Your task to perform on an android device: snooze an email in the gmail app Image 0: 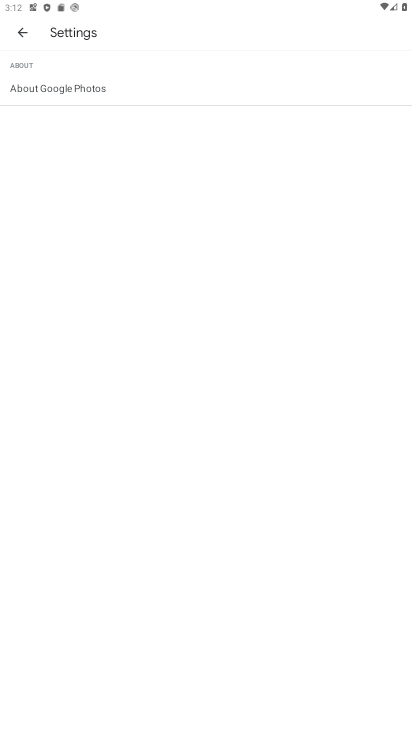
Step 0: press home button
Your task to perform on an android device: snooze an email in the gmail app Image 1: 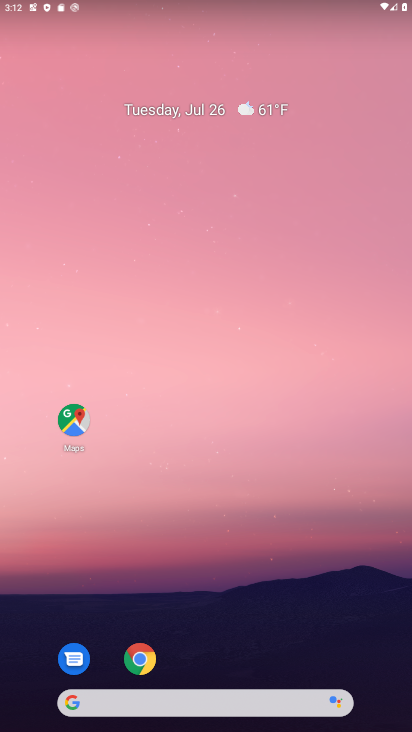
Step 1: drag from (187, 552) to (187, 212)
Your task to perform on an android device: snooze an email in the gmail app Image 2: 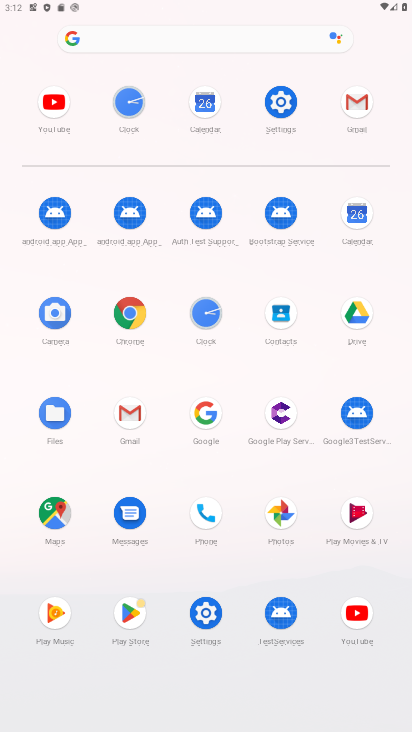
Step 2: click (122, 426)
Your task to perform on an android device: snooze an email in the gmail app Image 3: 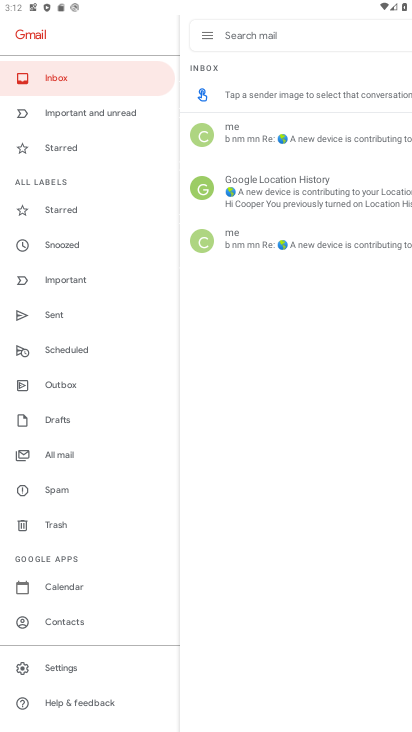
Step 3: click (253, 186)
Your task to perform on an android device: snooze an email in the gmail app Image 4: 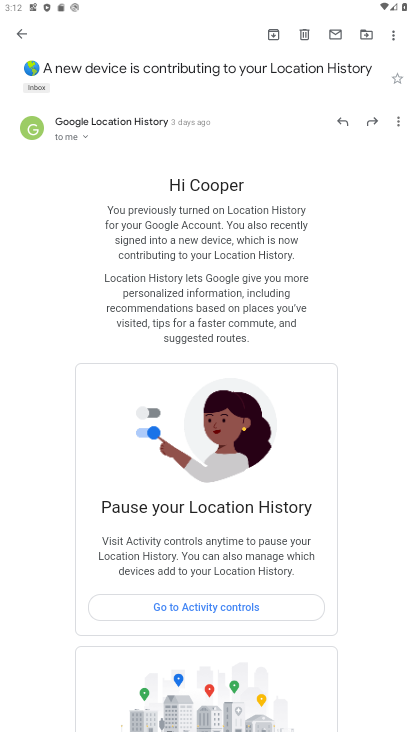
Step 4: click (391, 32)
Your task to perform on an android device: snooze an email in the gmail app Image 5: 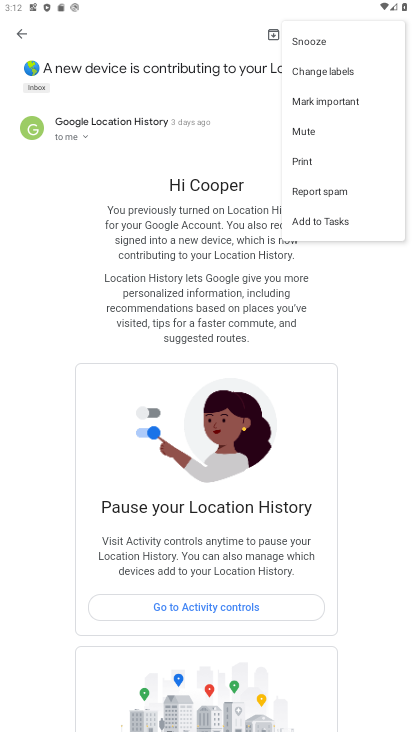
Step 5: click (305, 36)
Your task to perform on an android device: snooze an email in the gmail app Image 6: 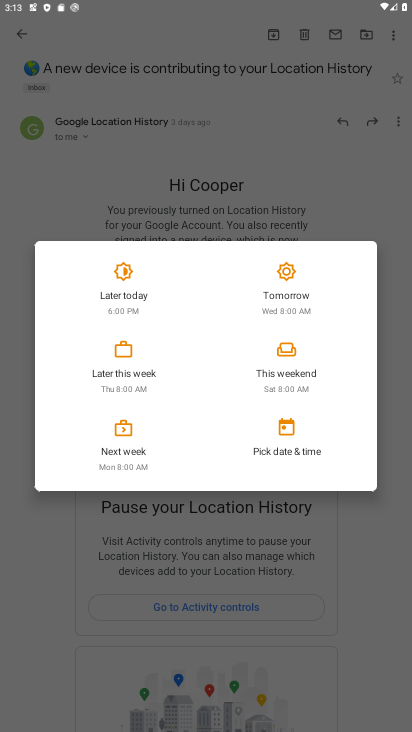
Step 6: click (118, 312)
Your task to perform on an android device: snooze an email in the gmail app Image 7: 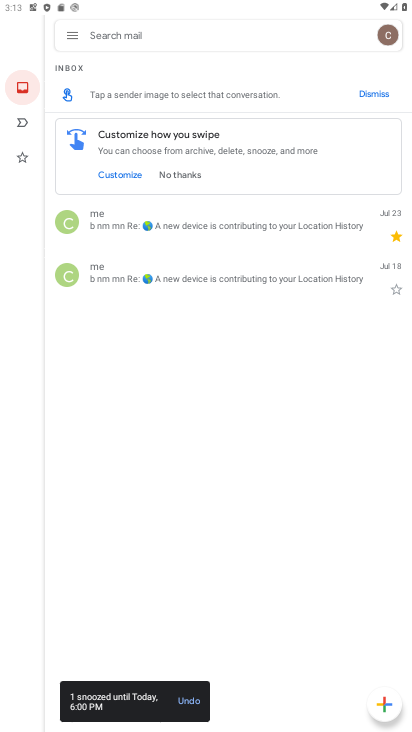
Step 7: task complete